Your task to perform on an android device: turn on improve location accuracy Image 0: 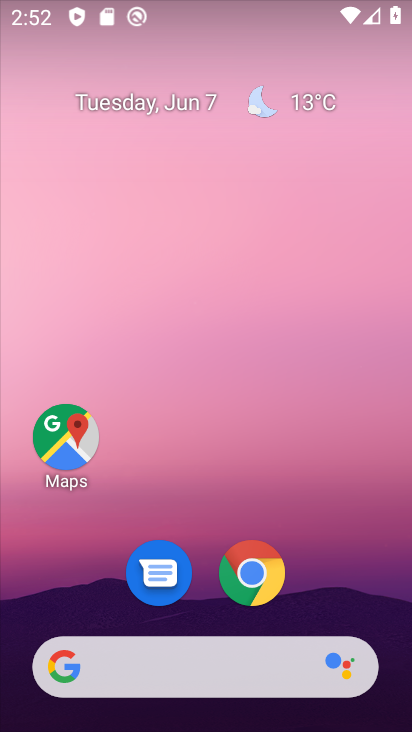
Step 0: drag from (116, 390) to (309, 91)
Your task to perform on an android device: turn on improve location accuracy Image 1: 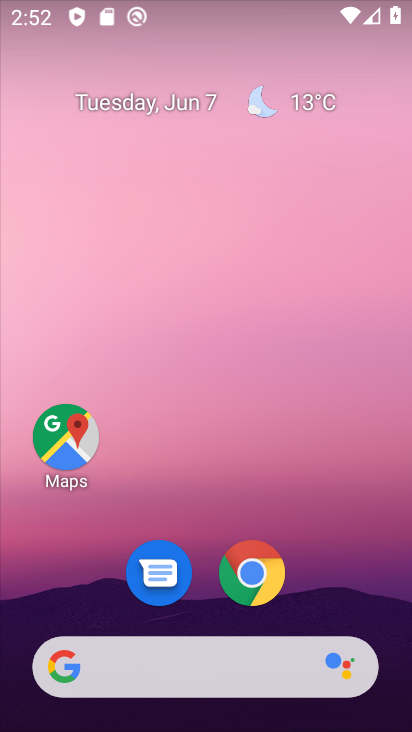
Step 1: drag from (129, 474) to (300, 158)
Your task to perform on an android device: turn on improve location accuracy Image 2: 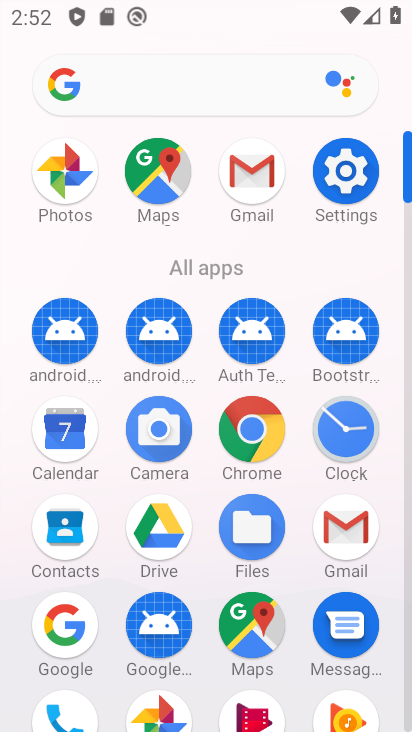
Step 2: click (342, 175)
Your task to perform on an android device: turn on improve location accuracy Image 3: 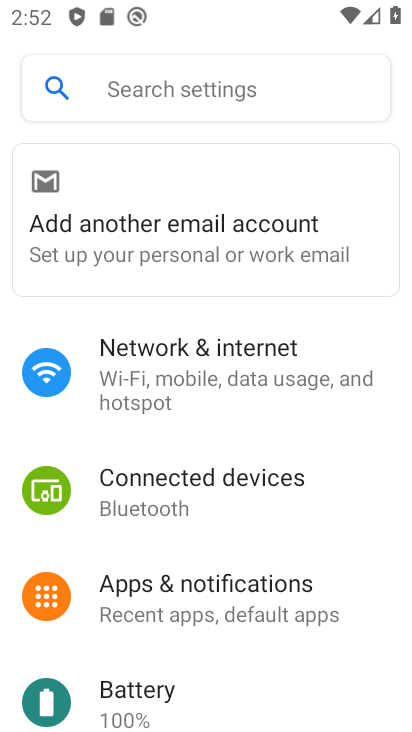
Step 3: drag from (8, 642) to (255, 187)
Your task to perform on an android device: turn on improve location accuracy Image 4: 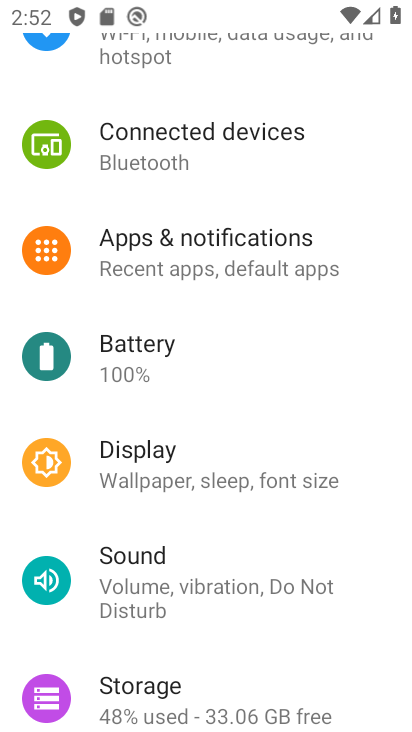
Step 4: drag from (2, 610) to (188, 210)
Your task to perform on an android device: turn on improve location accuracy Image 5: 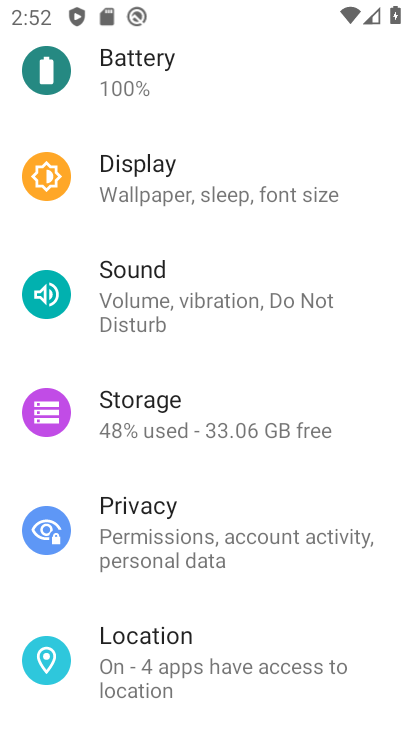
Step 5: click (103, 650)
Your task to perform on an android device: turn on improve location accuracy Image 6: 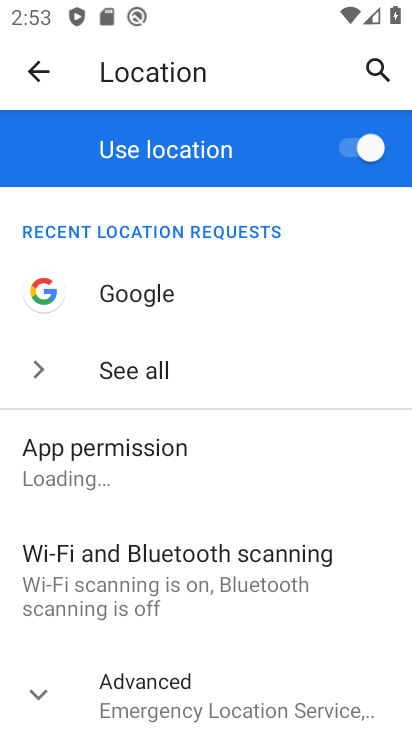
Step 6: drag from (25, 536) to (237, 167)
Your task to perform on an android device: turn on improve location accuracy Image 7: 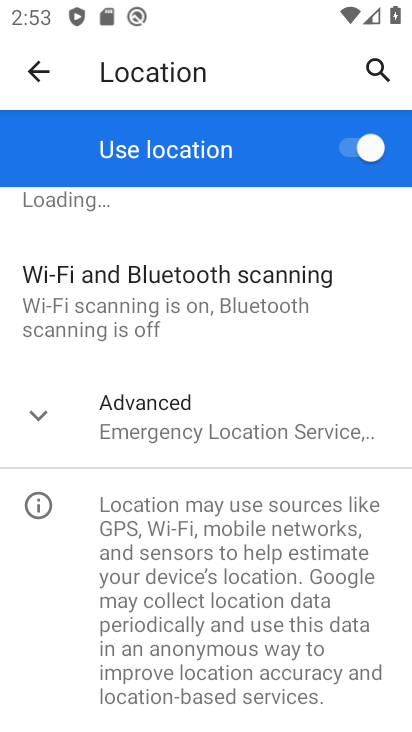
Step 7: click (208, 405)
Your task to perform on an android device: turn on improve location accuracy Image 8: 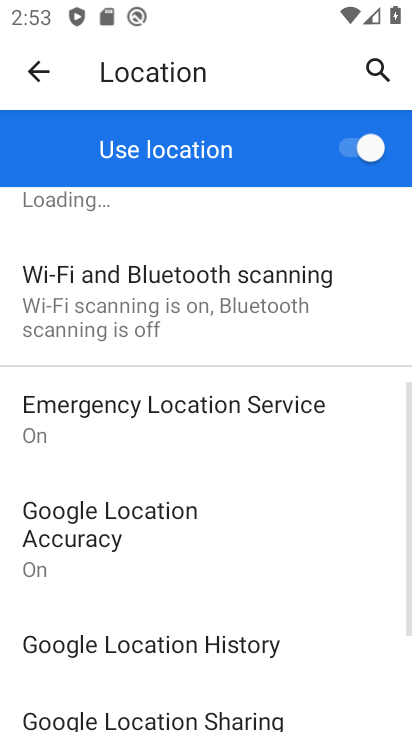
Step 8: task complete